Your task to perform on an android device: Search for rayovac triple a on newegg, select the first entry, and add it to the cart. Image 0: 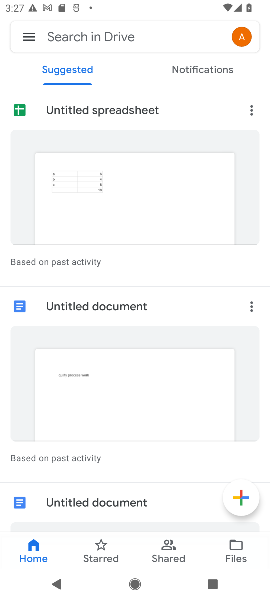
Step 0: press home button
Your task to perform on an android device: Search for rayovac triple a on newegg, select the first entry, and add it to the cart. Image 1: 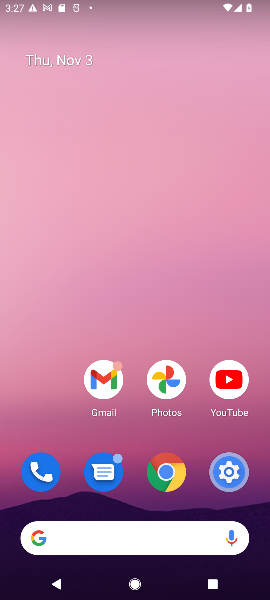
Step 1: click (96, 540)
Your task to perform on an android device: Search for rayovac triple a on newegg, select the first entry, and add it to the cart. Image 2: 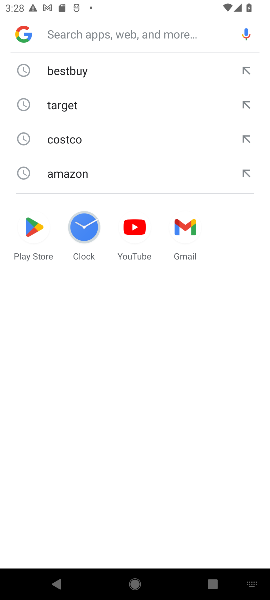
Step 2: type "newegg"
Your task to perform on an android device: Search for rayovac triple a on newegg, select the first entry, and add it to the cart. Image 3: 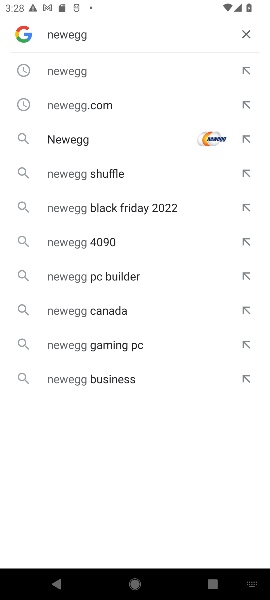
Step 3: click (71, 68)
Your task to perform on an android device: Search for rayovac triple a on newegg, select the first entry, and add it to the cart. Image 4: 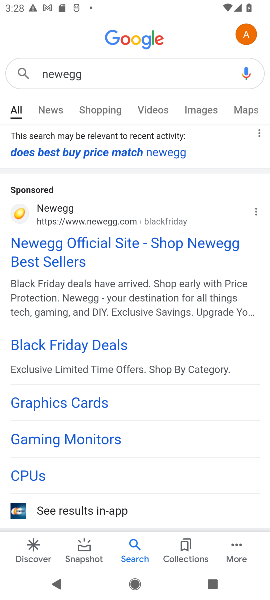
Step 4: click (66, 248)
Your task to perform on an android device: Search for rayovac triple a on newegg, select the first entry, and add it to the cart. Image 5: 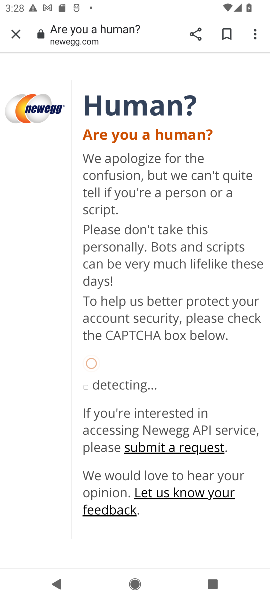
Step 5: drag from (59, 443) to (56, 280)
Your task to perform on an android device: Search for rayovac triple a on newegg, select the first entry, and add it to the cart. Image 6: 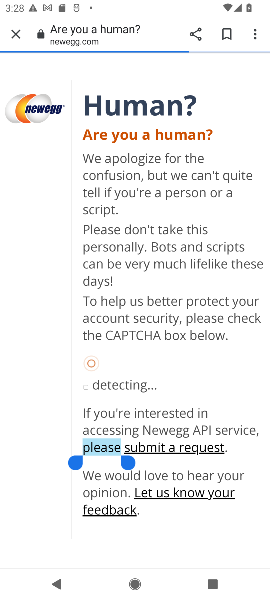
Step 6: click (56, 280)
Your task to perform on an android device: Search for rayovac triple a on newegg, select the first entry, and add it to the cart. Image 7: 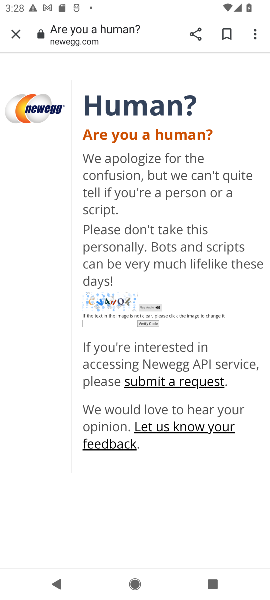
Step 7: click (106, 328)
Your task to perform on an android device: Search for rayovac triple a on newegg, select the first entry, and add it to the cart. Image 8: 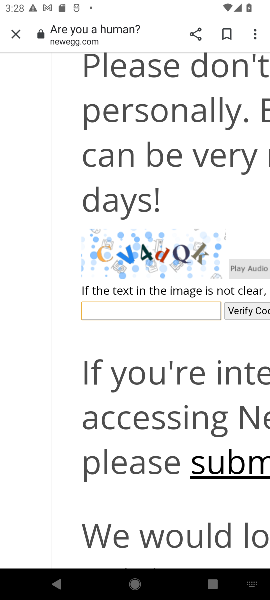
Step 8: type "CV4dQK"
Your task to perform on an android device: Search for rayovac triple a on newegg, select the first entry, and add it to the cart. Image 9: 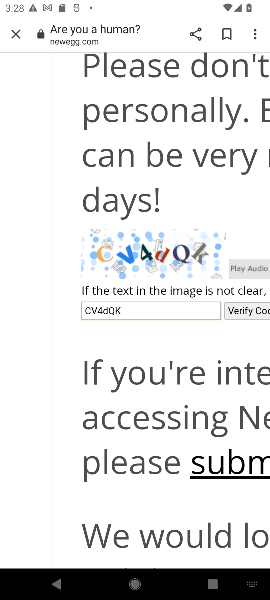
Step 9: click (246, 319)
Your task to perform on an android device: Search for rayovac triple a on newegg, select the first entry, and add it to the cart. Image 10: 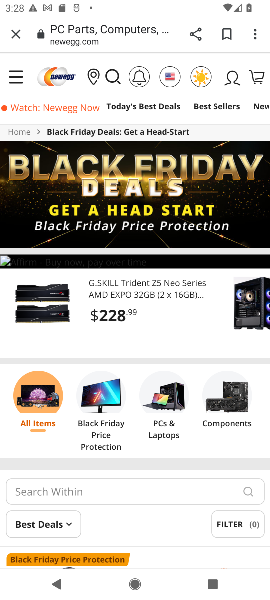
Step 10: click (119, 76)
Your task to perform on an android device: Search for rayovac triple a on newegg, select the first entry, and add it to the cart. Image 11: 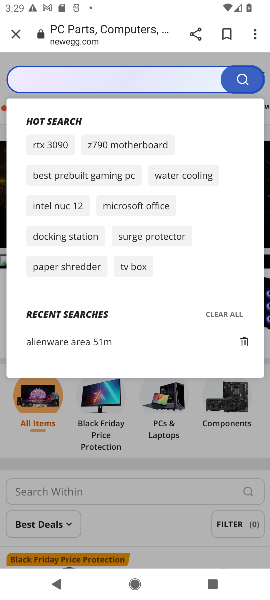
Step 11: type "rayovac"
Your task to perform on an android device: Search for rayovac triple a on newegg, select the first entry, and add it to the cart. Image 12: 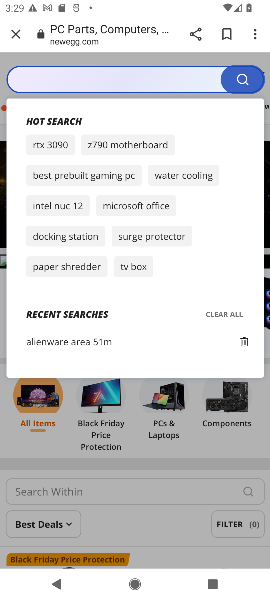
Step 12: click (47, 77)
Your task to perform on an android device: Search for rayovac triple a on newegg, select the first entry, and add it to the cart. Image 13: 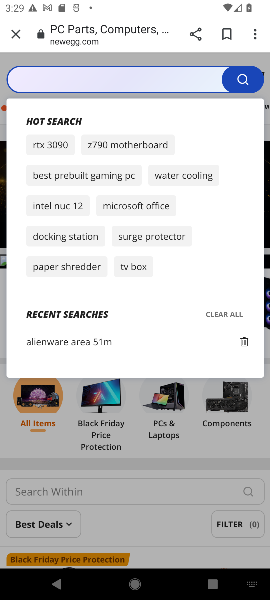
Step 13: type "rayovac"
Your task to perform on an android device: Search for rayovac triple a on newegg, select the first entry, and add it to the cart. Image 14: 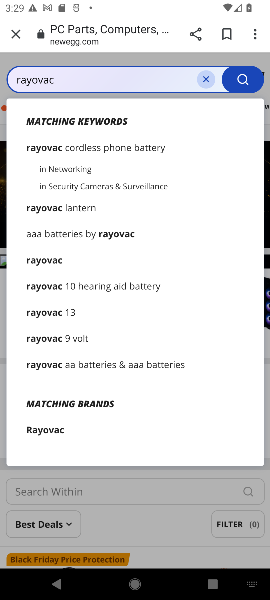
Step 14: click (238, 81)
Your task to perform on an android device: Search for rayovac triple a on newegg, select the first entry, and add it to the cart. Image 15: 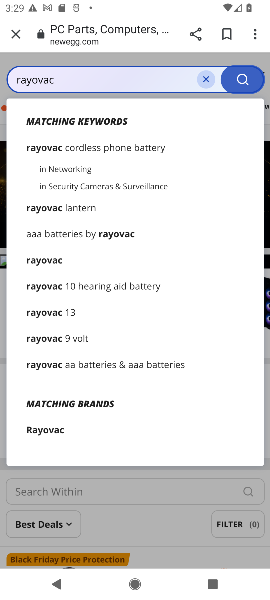
Step 15: click (238, 81)
Your task to perform on an android device: Search for rayovac triple a on newegg, select the first entry, and add it to the cart. Image 16: 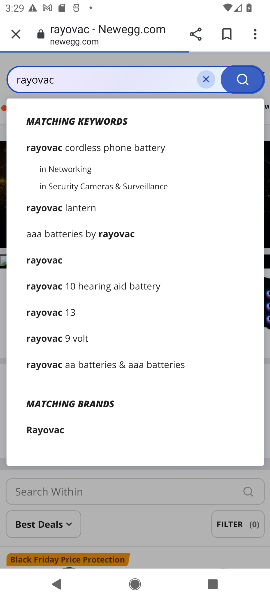
Step 16: task complete